Your task to perform on an android device: change the clock display to digital Image 0: 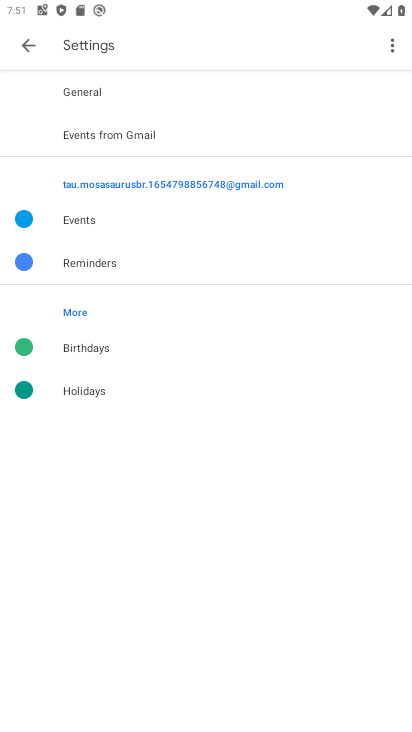
Step 0: press home button
Your task to perform on an android device: change the clock display to digital Image 1: 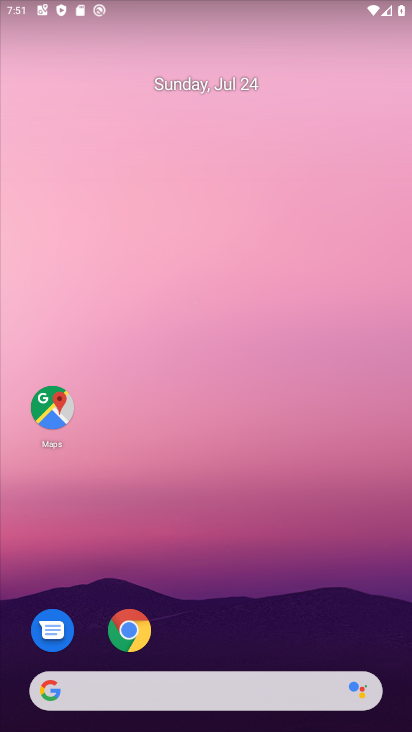
Step 1: drag from (212, 593) to (183, 167)
Your task to perform on an android device: change the clock display to digital Image 2: 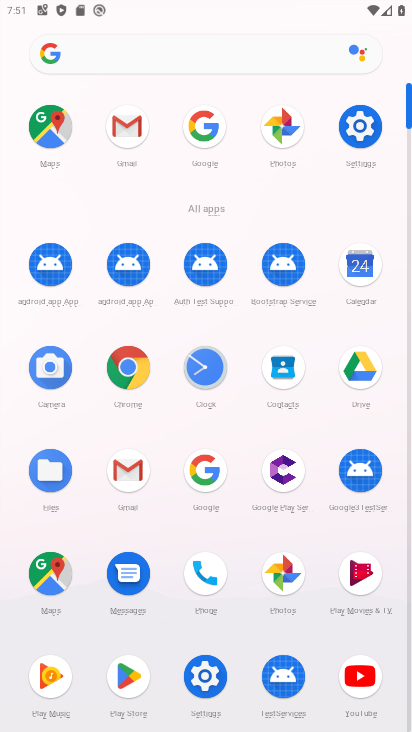
Step 2: click (219, 379)
Your task to perform on an android device: change the clock display to digital Image 3: 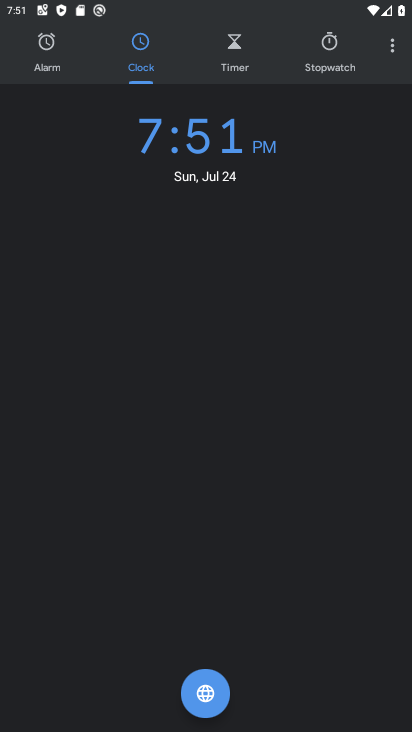
Step 3: click (386, 58)
Your task to perform on an android device: change the clock display to digital Image 4: 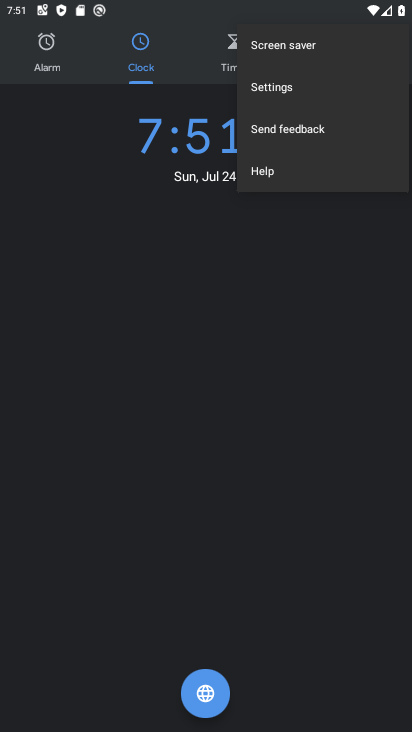
Step 4: click (312, 85)
Your task to perform on an android device: change the clock display to digital Image 5: 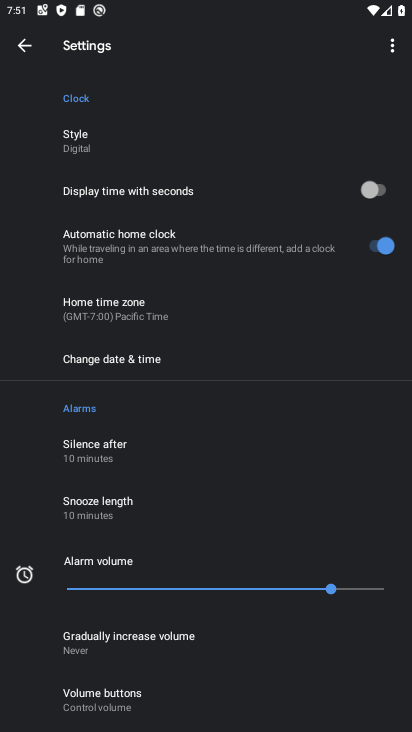
Step 5: click (115, 141)
Your task to perform on an android device: change the clock display to digital Image 6: 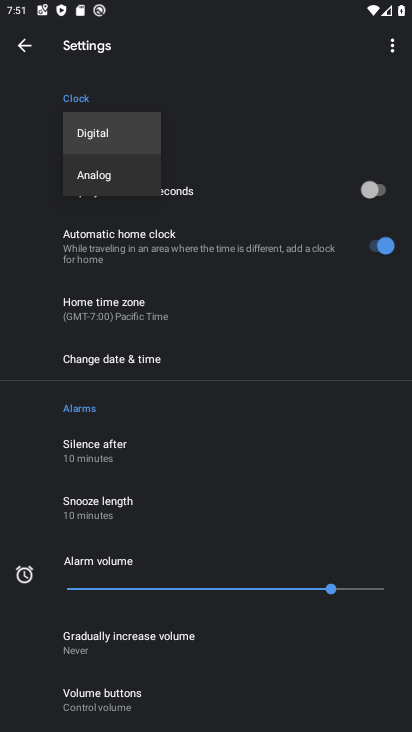
Step 6: task complete